Your task to perform on an android device: turn off data saver in the chrome app Image 0: 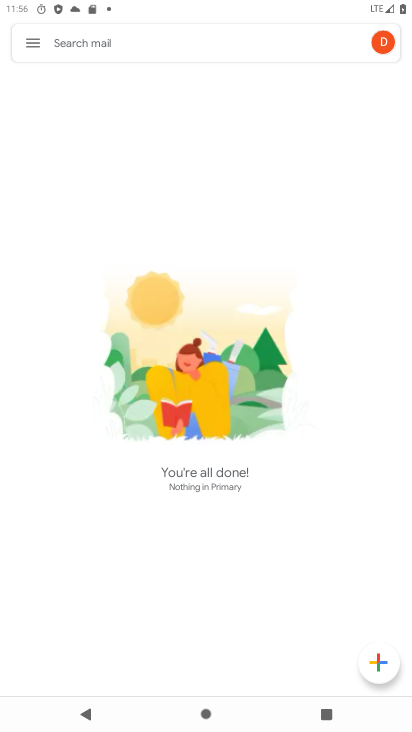
Step 0: press home button
Your task to perform on an android device: turn off data saver in the chrome app Image 1: 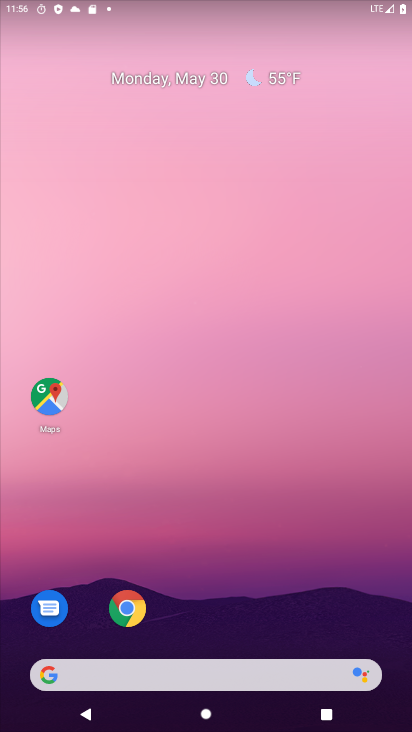
Step 1: click (134, 611)
Your task to perform on an android device: turn off data saver in the chrome app Image 2: 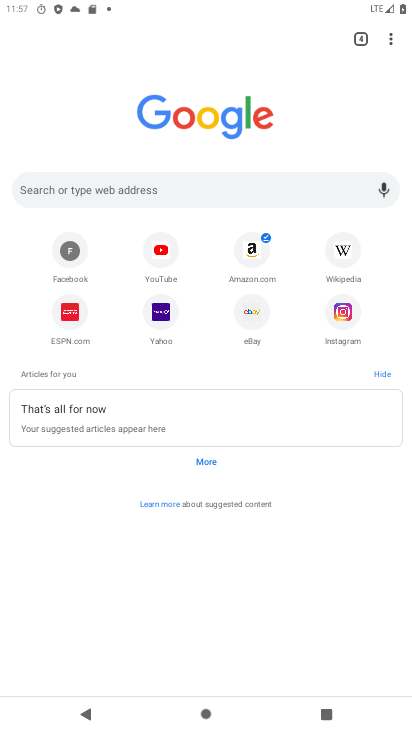
Step 2: click (391, 41)
Your task to perform on an android device: turn off data saver in the chrome app Image 3: 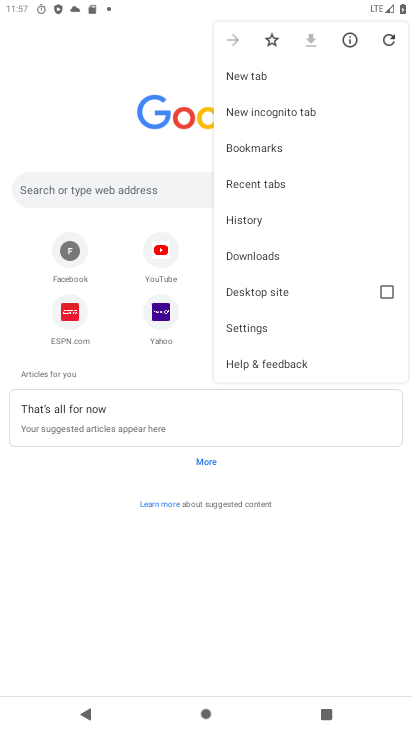
Step 3: click (244, 326)
Your task to perform on an android device: turn off data saver in the chrome app Image 4: 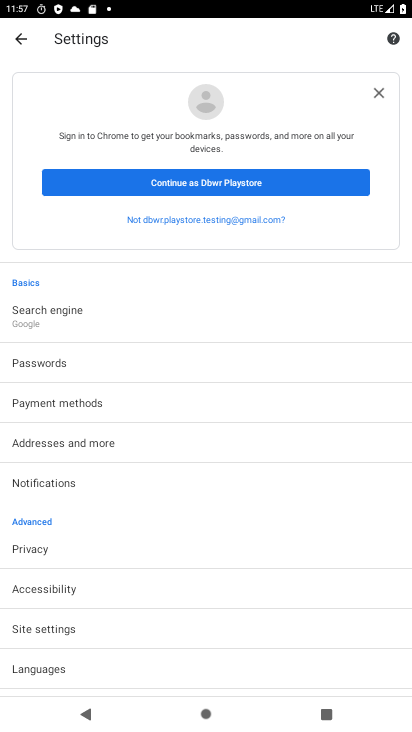
Step 4: drag from (116, 653) to (123, 512)
Your task to perform on an android device: turn off data saver in the chrome app Image 5: 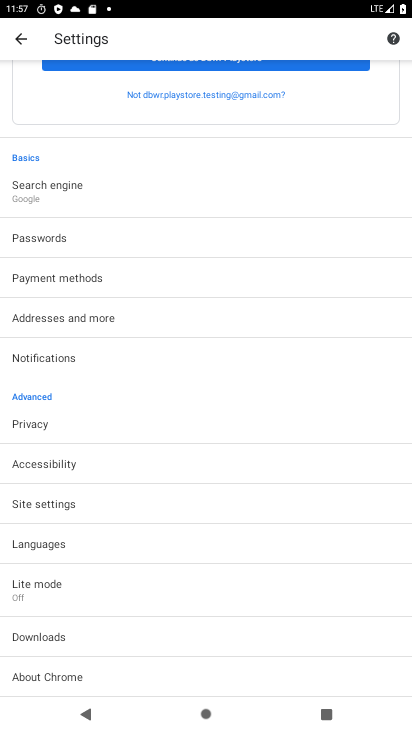
Step 5: click (16, 585)
Your task to perform on an android device: turn off data saver in the chrome app Image 6: 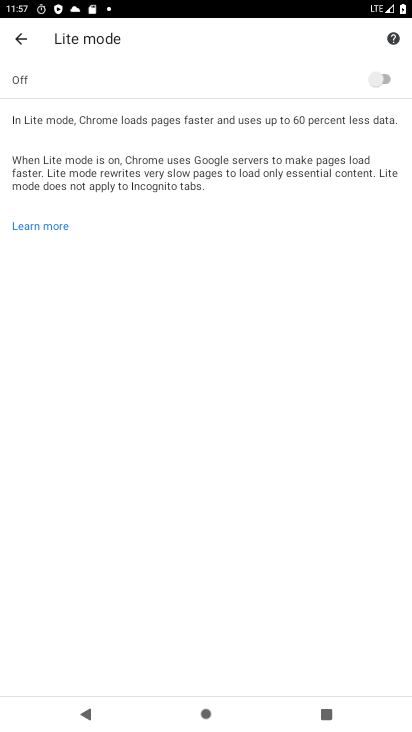
Step 6: task complete